Your task to perform on an android device: Search for Italian restaurants on Maps Image 0: 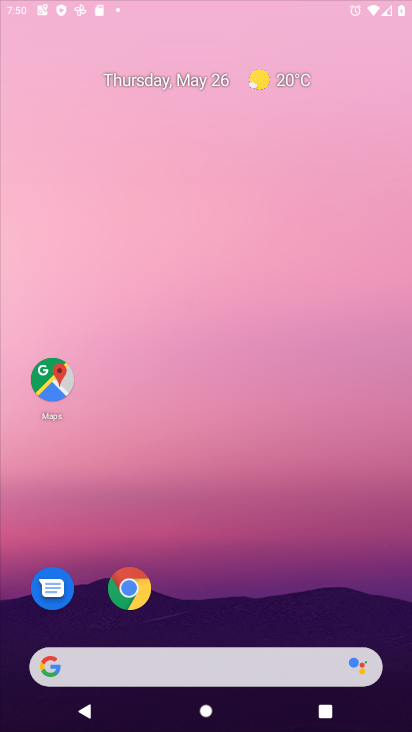
Step 0: drag from (342, 537) to (283, 74)
Your task to perform on an android device: Search for Italian restaurants on Maps Image 1: 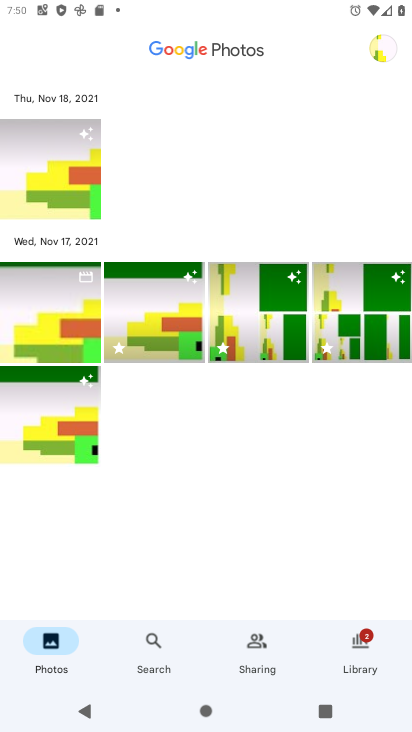
Step 1: press home button
Your task to perform on an android device: Search for Italian restaurants on Maps Image 2: 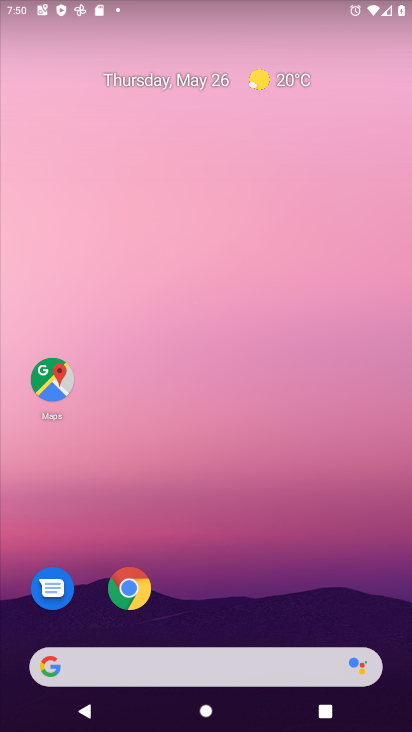
Step 2: drag from (370, 631) to (265, 86)
Your task to perform on an android device: Search for Italian restaurants on Maps Image 3: 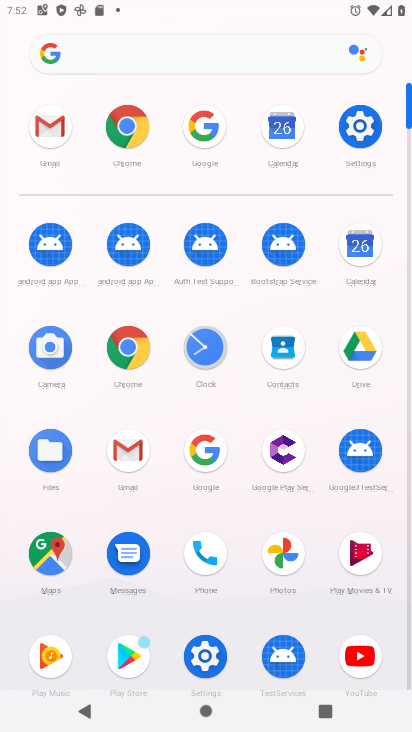
Step 3: click (57, 541)
Your task to perform on an android device: Search for Italian restaurants on Maps Image 4: 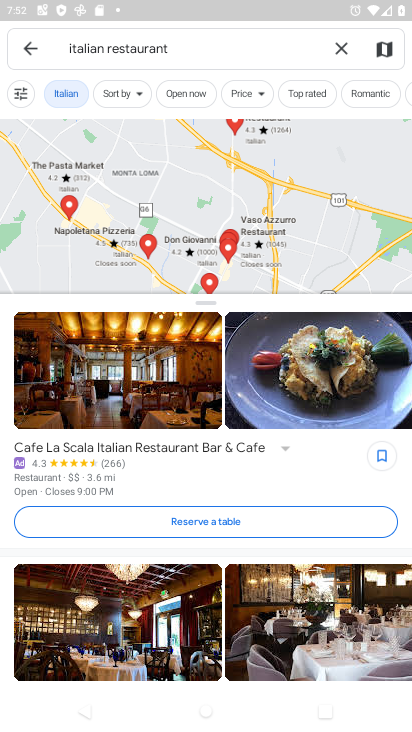
Step 4: task complete